Your task to perform on an android device: open the mobile data screen to see how much data has been used Image 0: 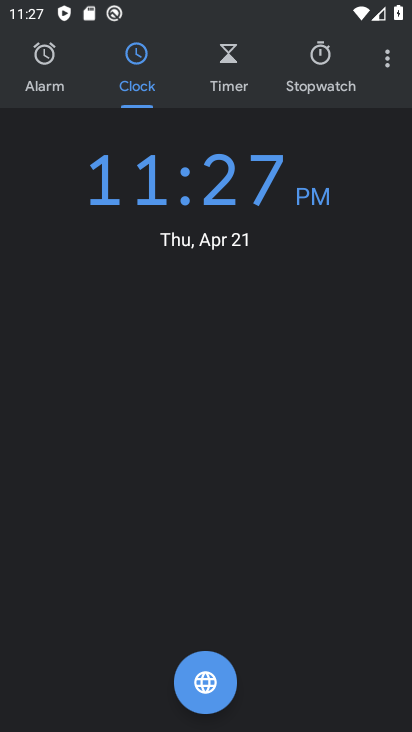
Step 0: press home button
Your task to perform on an android device: open the mobile data screen to see how much data has been used Image 1: 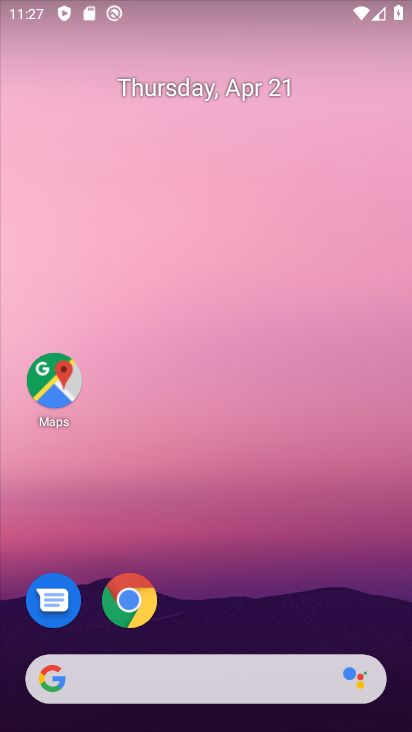
Step 1: drag from (265, 520) to (298, 105)
Your task to perform on an android device: open the mobile data screen to see how much data has been used Image 2: 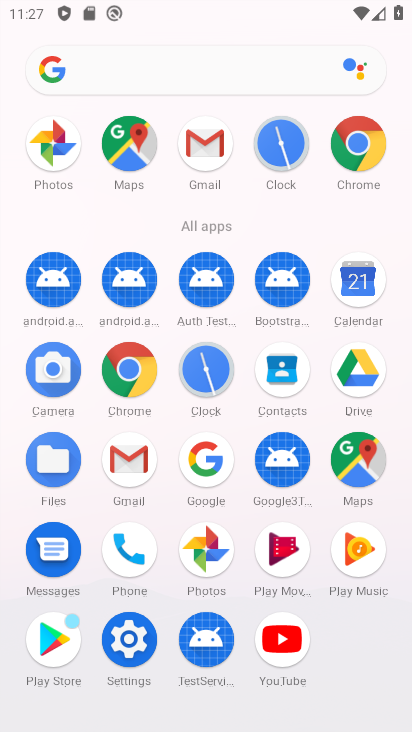
Step 2: click (124, 638)
Your task to perform on an android device: open the mobile data screen to see how much data has been used Image 3: 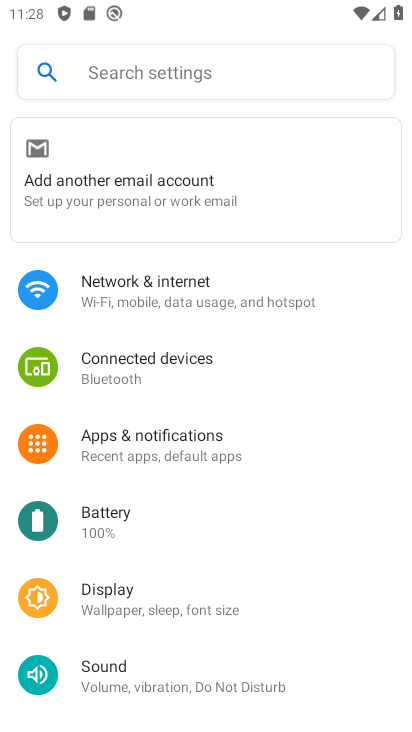
Step 3: click (177, 308)
Your task to perform on an android device: open the mobile data screen to see how much data has been used Image 4: 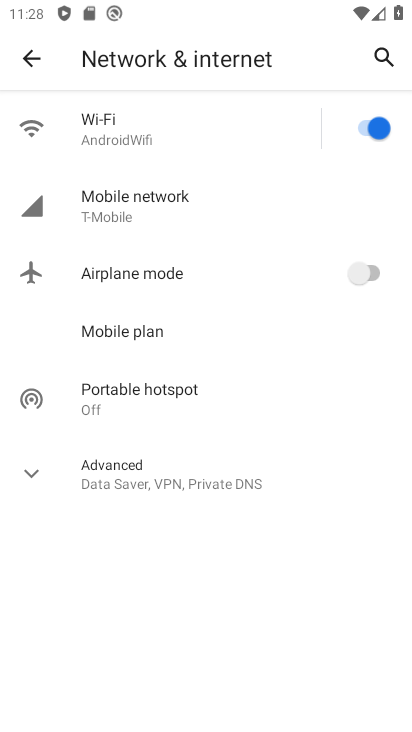
Step 4: click (213, 219)
Your task to perform on an android device: open the mobile data screen to see how much data has been used Image 5: 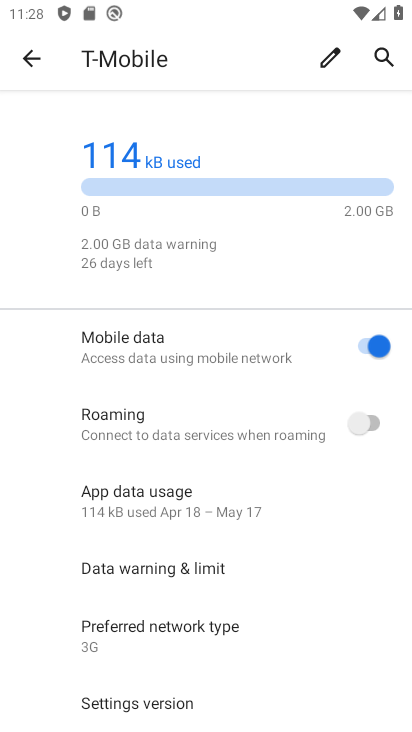
Step 5: task complete